Your task to perform on an android device: Open ESPN.com Image 0: 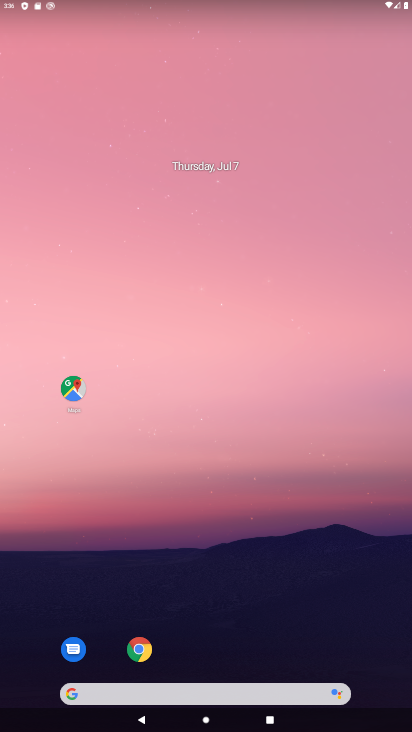
Step 0: drag from (375, 681) to (344, 241)
Your task to perform on an android device: Open ESPN.com Image 1: 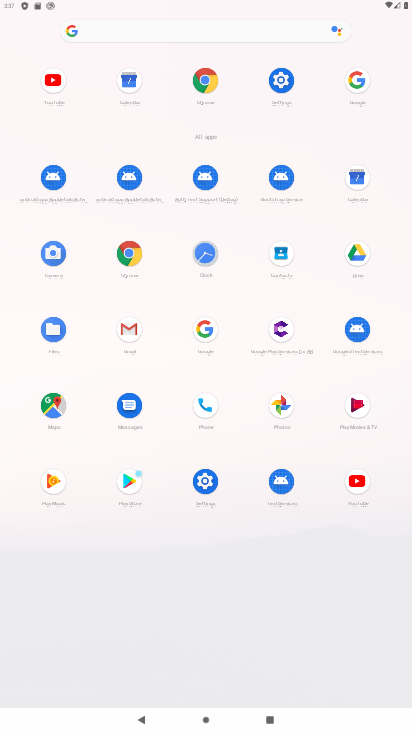
Step 1: click (360, 90)
Your task to perform on an android device: Open ESPN.com Image 2: 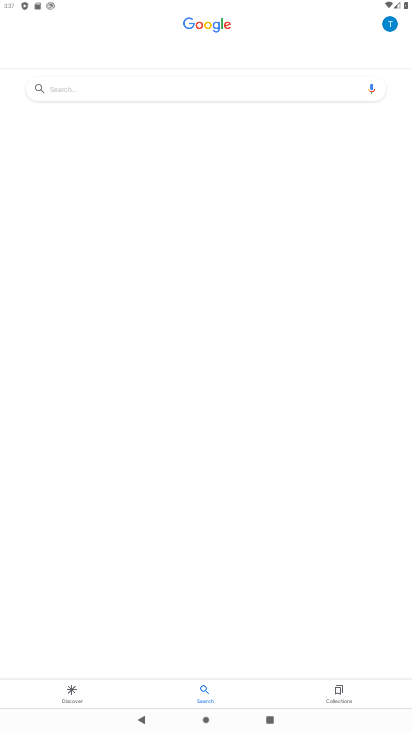
Step 2: click (212, 90)
Your task to perform on an android device: Open ESPN.com Image 3: 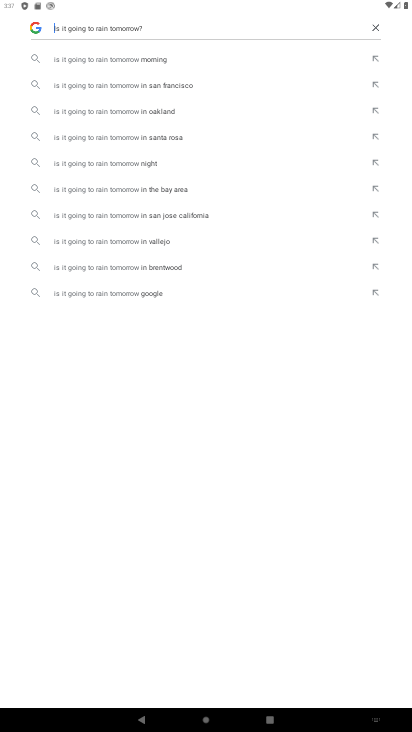
Step 3: click (373, 23)
Your task to perform on an android device: Open ESPN.com Image 4: 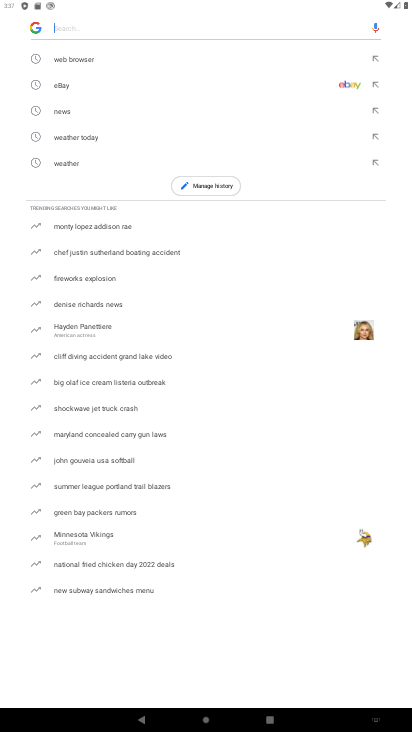
Step 4: type "espn.com"
Your task to perform on an android device: Open ESPN.com Image 5: 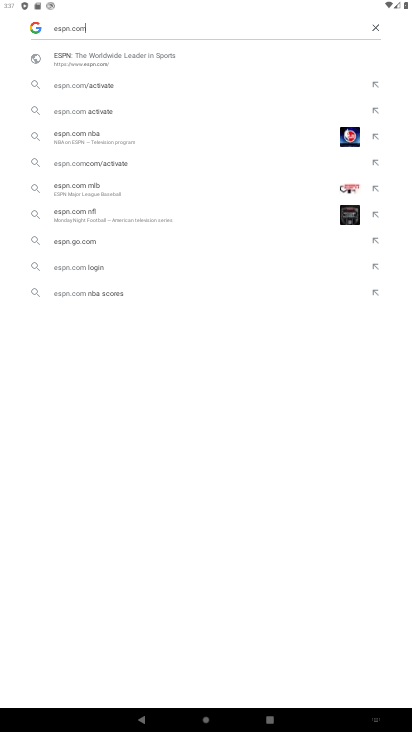
Step 5: click (110, 61)
Your task to perform on an android device: Open ESPN.com Image 6: 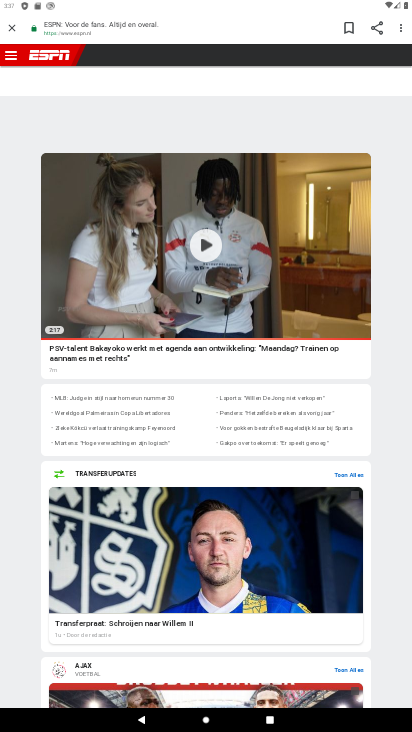
Step 6: task complete